Your task to perform on an android device: Do I have any events today? Image 0: 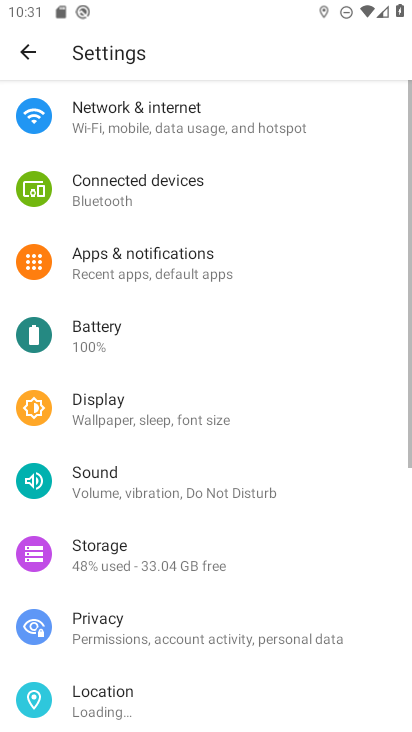
Step 0: press home button
Your task to perform on an android device: Do I have any events today? Image 1: 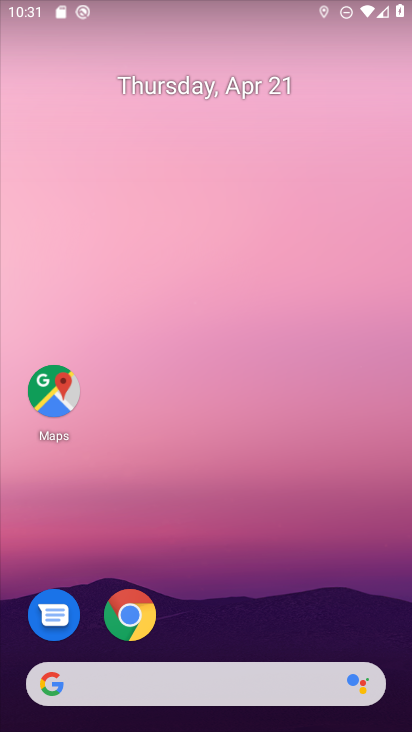
Step 1: drag from (211, 716) to (214, 115)
Your task to perform on an android device: Do I have any events today? Image 2: 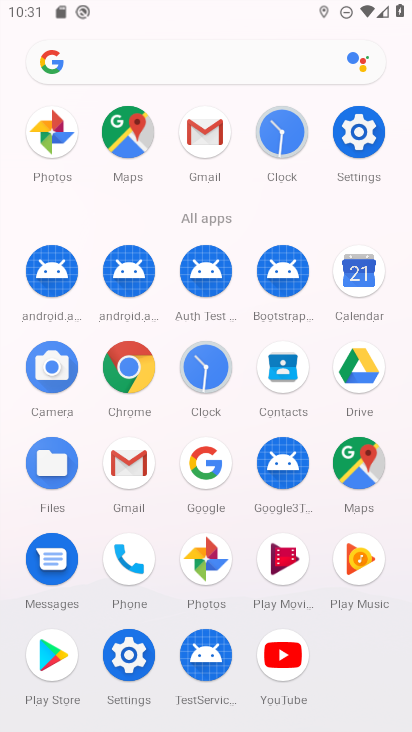
Step 2: click (357, 275)
Your task to perform on an android device: Do I have any events today? Image 3: 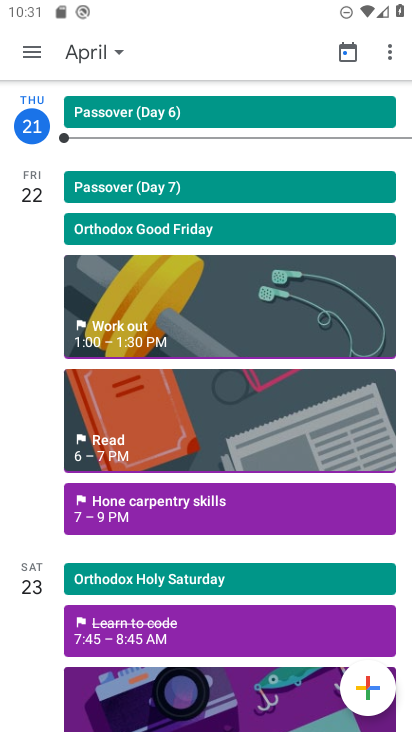
Step 3: click (28, 51)
Your task to perform on an android device: Do I have any events today? Image 4: 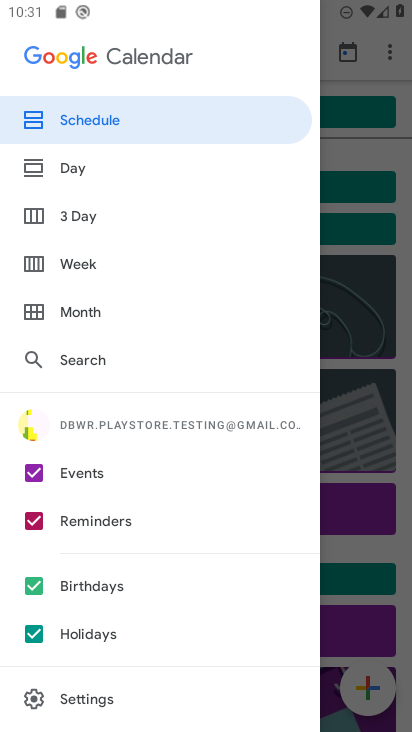
Step 4: click (37, 631)
Your task to perform on an android device: Do I have any events today? Image 5: 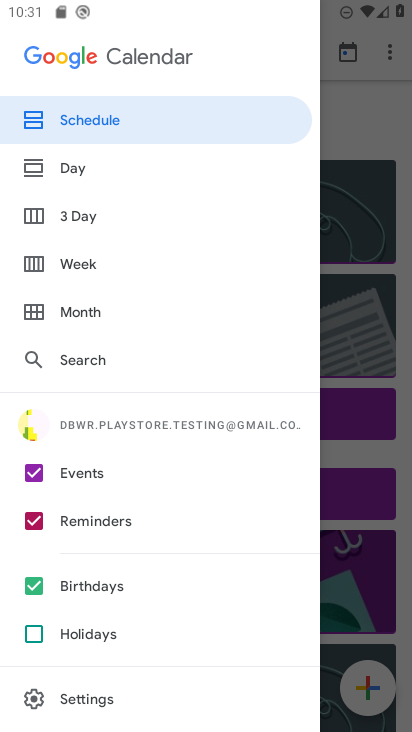
Step 5: click (33, 583)
Your task to perform on an android device: Do I have any events today? Image 6: 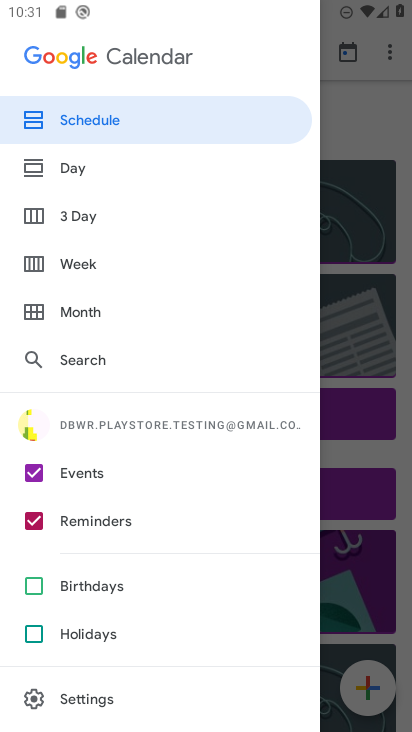
Step 6: click (33, 523)
Your task to perform on an android device: Do I have any events today? Image 7: 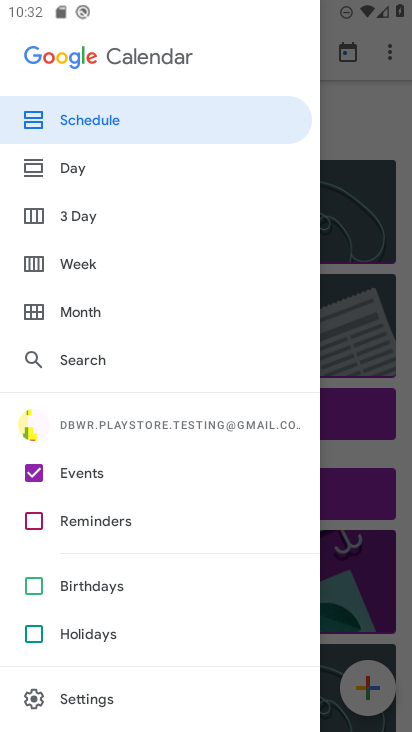
Step 7: click (127, 118)
Your task to perform on an android device: Do I have any events today? Image 8: 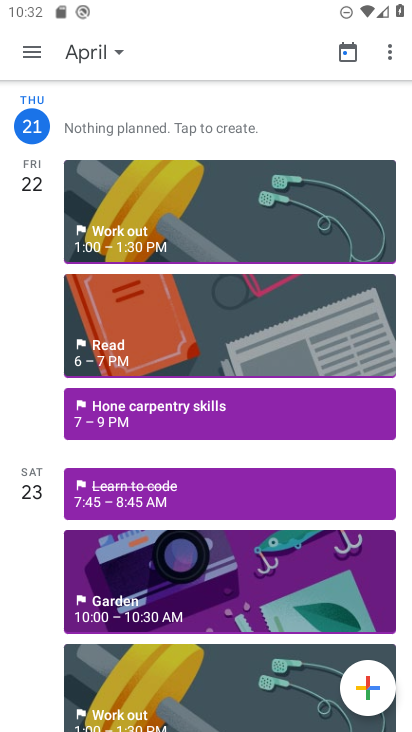
Step 8: task complete